Your task to perform on an android device: see tabs open on other devices in the chrome app Image 0: 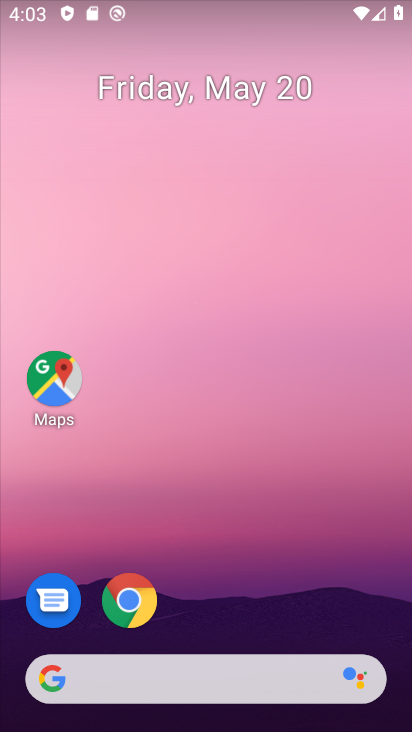
Step 0: drag from (272, 540) to (224, 0)
Your task to perform on an android device: see tabs open on other devices in the chrome app Image 1: 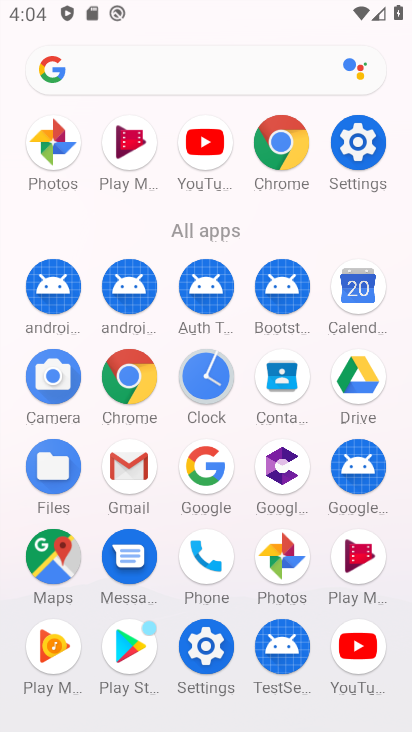
Step 1: drag from (11, 583) to (21, 263)
Your task to perform on an android device: see tabs open on other devices in the chrome app Image 2: 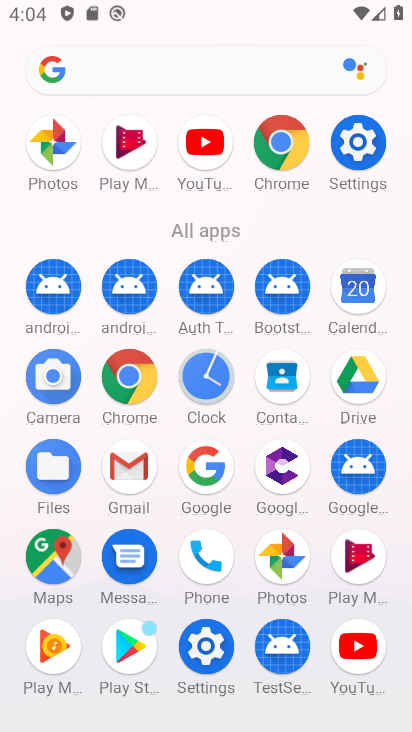
Step 2: click (128, 376)
Your task to perform on an android device: see tabs open on other devices in the chrome app Image 3: 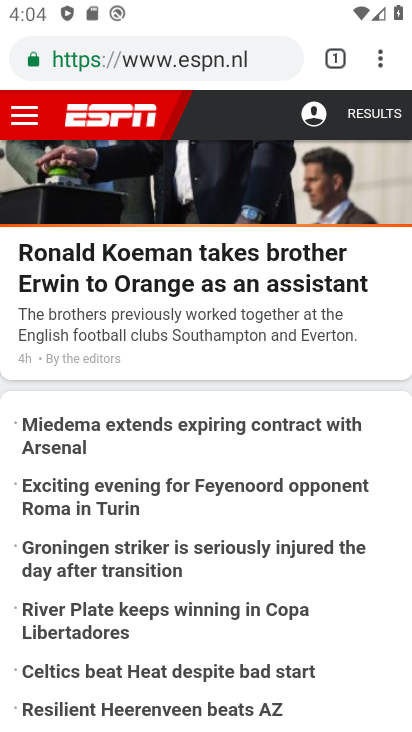
Step 3: task complete